Your task to perform on an android device: Open location settings Image 0: 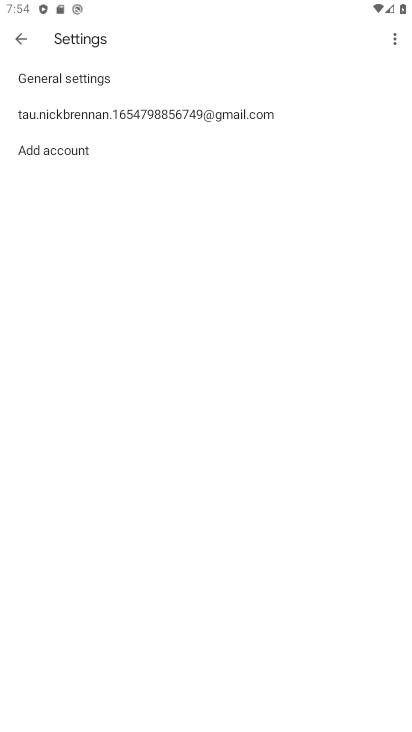
Step 0: press home button
Your task to perform on an android device: Open location settings Image 1: 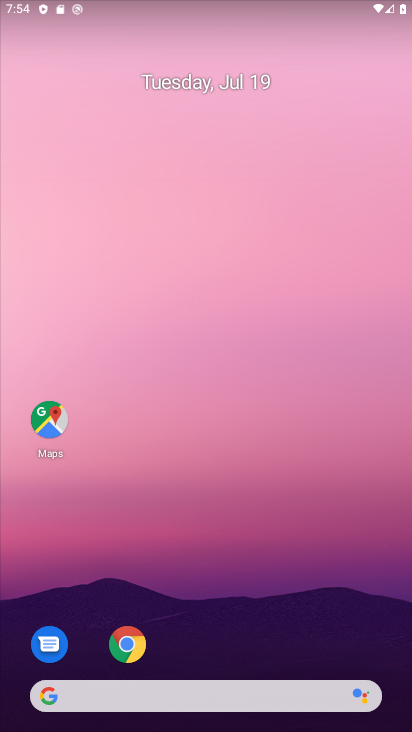
Step 1: drag from (265, 636) to (231, 185)
Your task to perform on an android device: Open location settings Image 2: 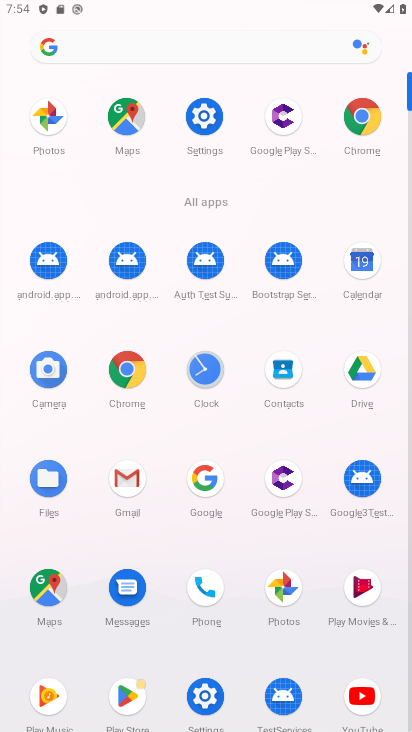
Step 2: click (199, 106)
Your task to perform on an android device: Open location settings Image 3: 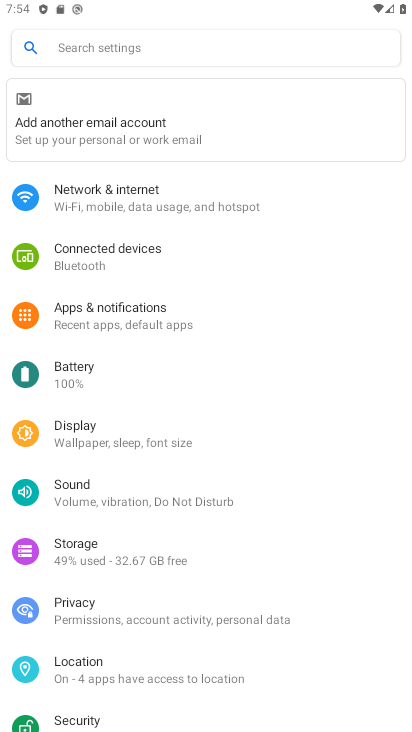
Step 3: click (142, 681)
Your task to perform on an android device: Open location settings Image 4: 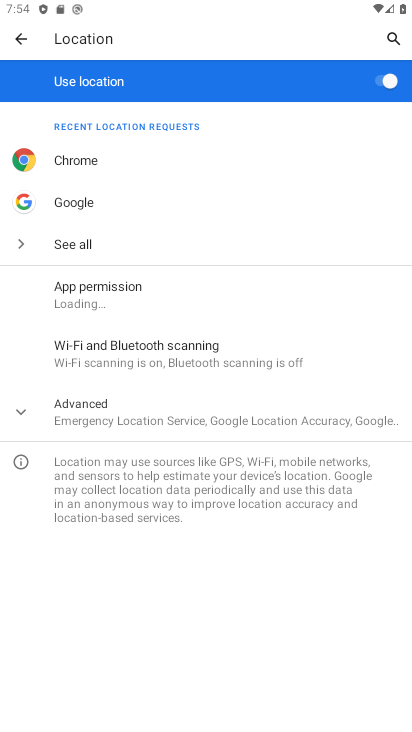
Step 4: task complete